Your task to perform on an android device: change keyboard looks Image 0: 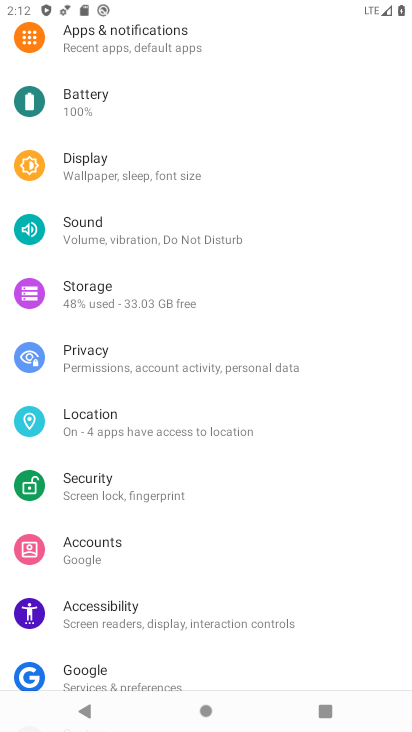
Step 0: press home button
Your task to perform on an android device: change keyboard looks Image 1: 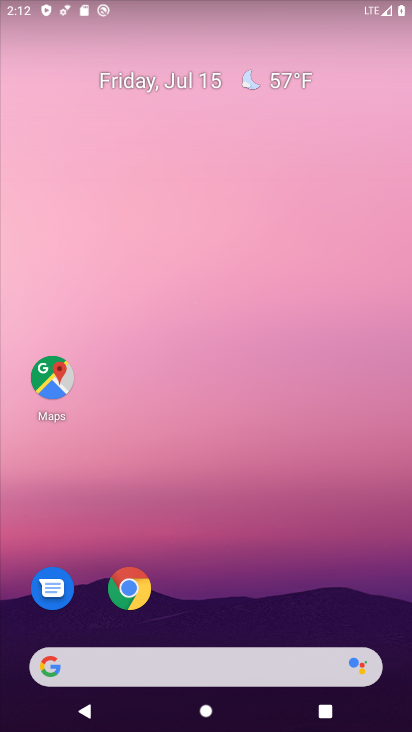
Step 1: drag from (292, 593) to (368, 14)
Your task to perform on an android device: change keyboard looks Image 2: 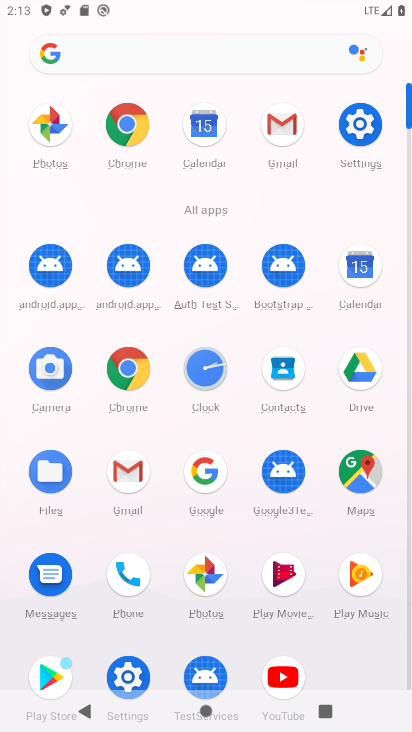
Step 2: click (360, 150)
Your task to perform on an android device: change keyboard looks Image 3: 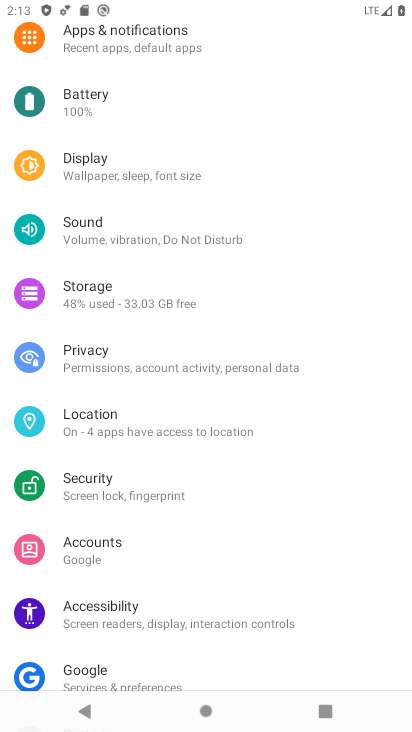
Step 3: drag from (313, 597) to (131, 134)
Your task to perform on an android device: change keyboard looks Image 4: 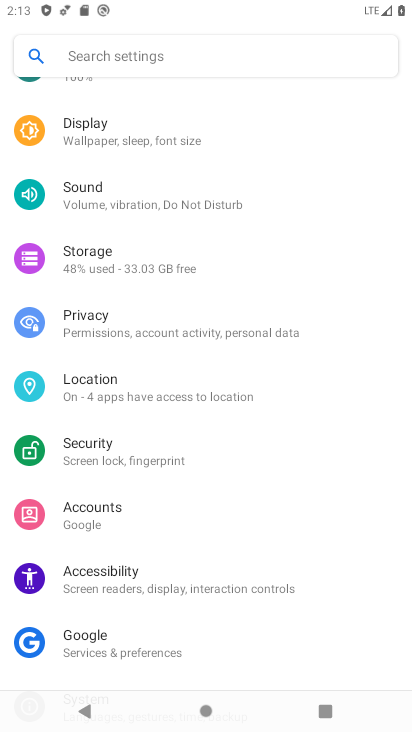
Step 4: drag from (196, 639) to (117, 180)
Your task to perform on an android device: change keyboard looks Image 5: 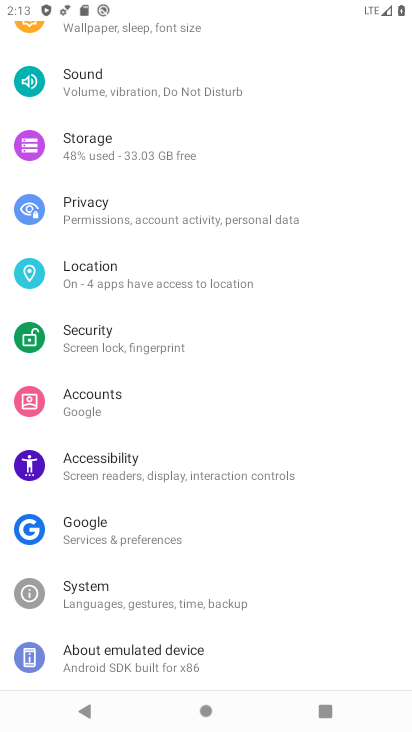
Step 5: click (101, 586)
Your task to perform on an android device: change keyboard looks Image 6: 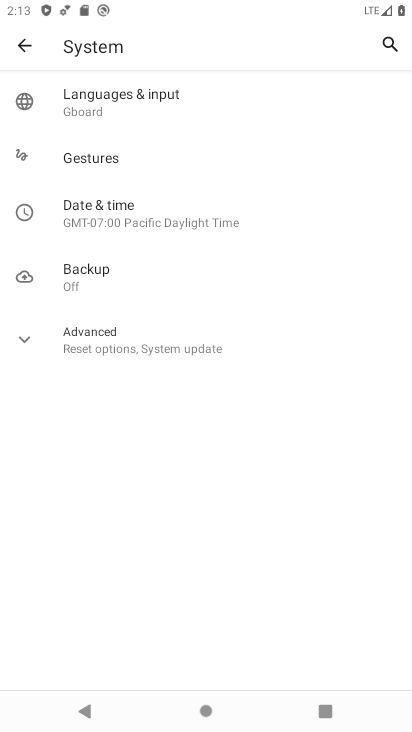
Step 6: click (126, 96)
Your task to perform on an android device: change keyboard looks Image 7: 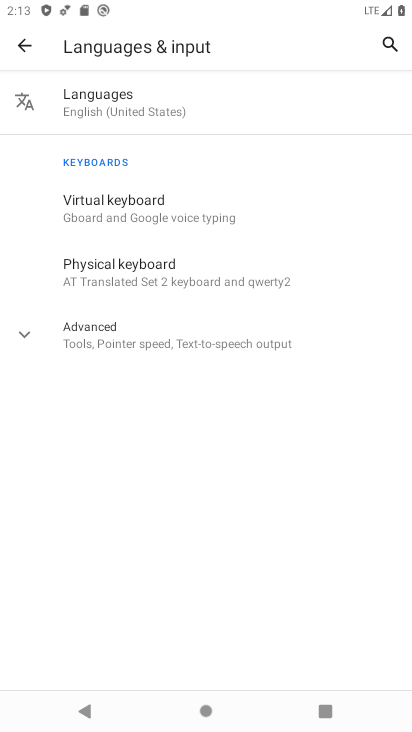
Step 7: click (139, 204)
Your task to perform on an android device: change keyboard looks Image 8: 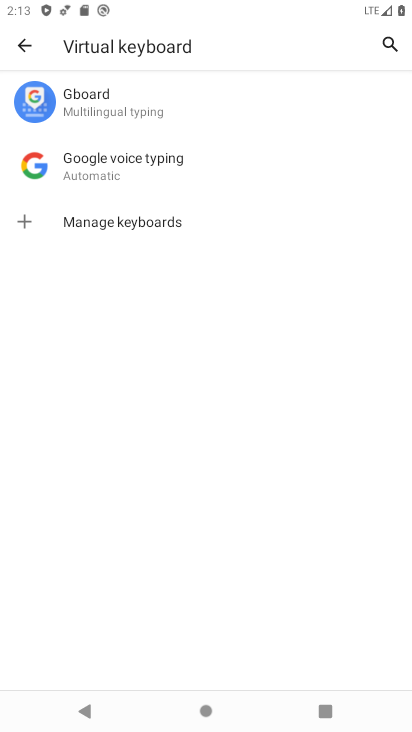
Step 8: click (137, 117)
Your task to perform on an android device: change keyboard looks Image 9: 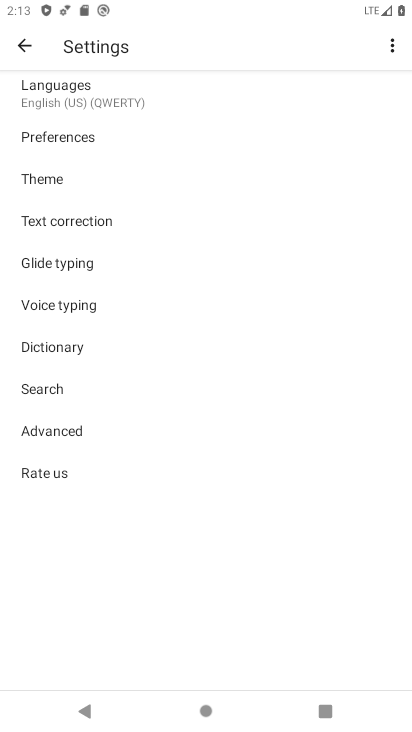
Step 9: click (74, 179)
Your task to perform on an android device: change keyboard looks Image 10: 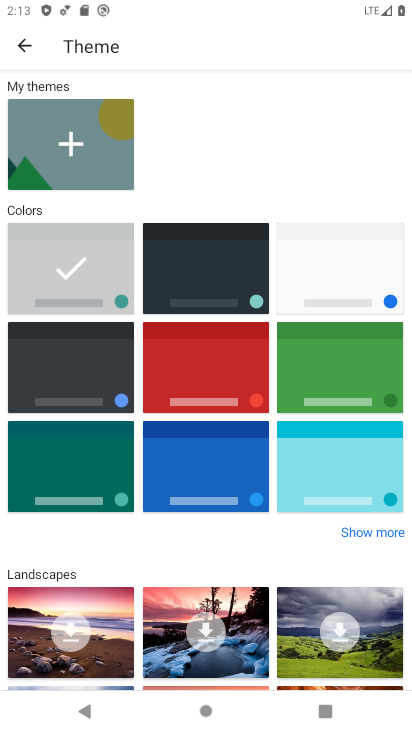
Step 10: click (215, 458)
Your task to perform on an android device: change keyboard looks Image 11: 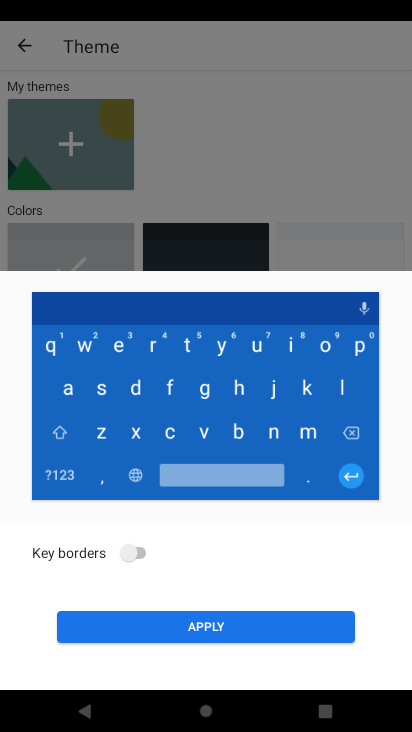
Step 11: click (318, 469)
Your task to perform on an android device: change keyboard looks Image 12: 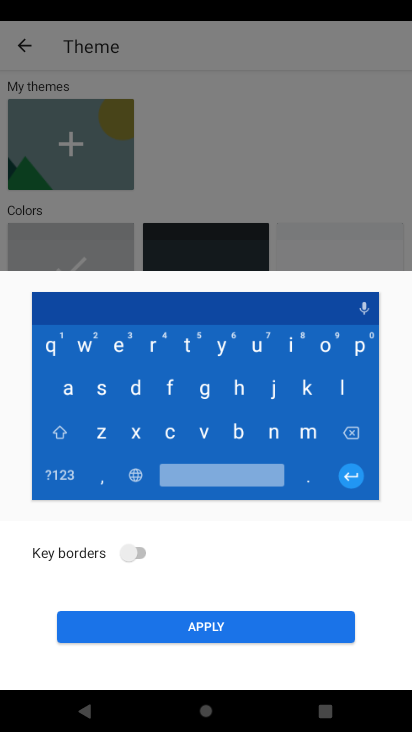
Step 12: click (138, 616)
Your task to perform on an android device: change keyboard looks Image 13: 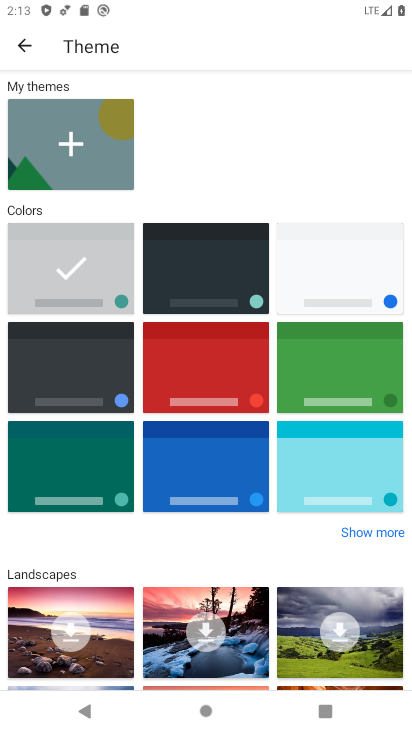
Step 13: click (135, 612)
Your task to perform on an android device: change keyboard looks Image 14: 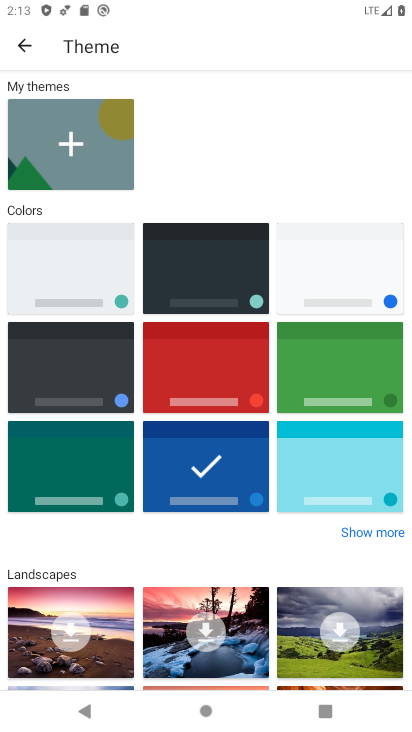
Step 14: task complete